Your task to perform on an android device: Open Amazon Image 0: 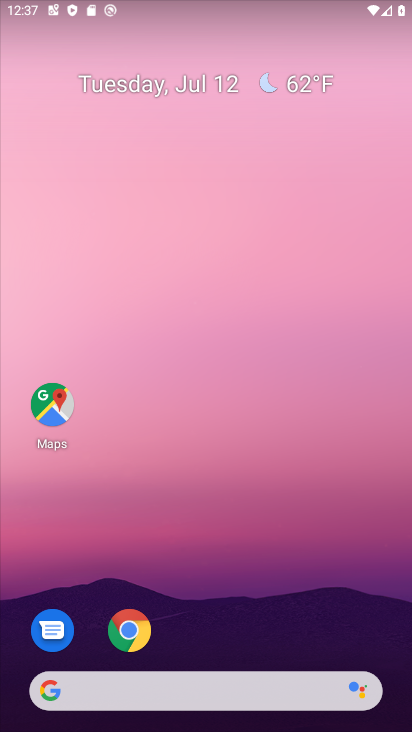
Step 0: click (125, 629)
Your task to perform on an android device: Open Amazon Image 1: 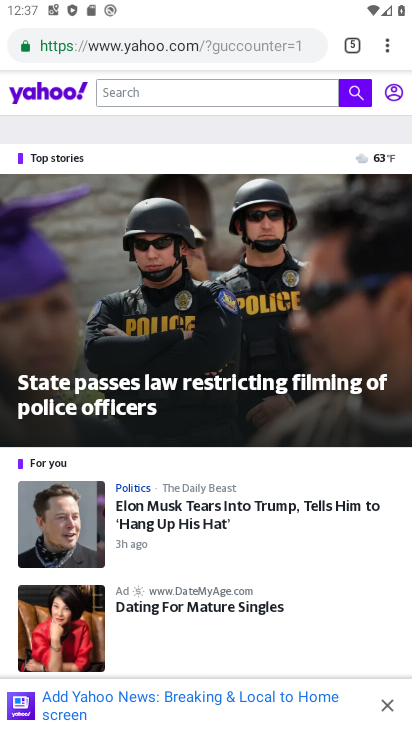
Step 1: click (385, 45)
Your task to perform on an android device: Open Amazon Image 2: 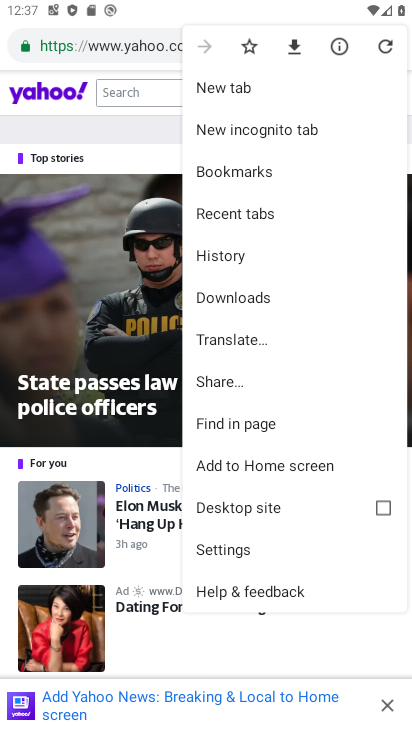
Step 2: click (234, 81)
Your task to perform on an android device: Open Amazon Image 3: 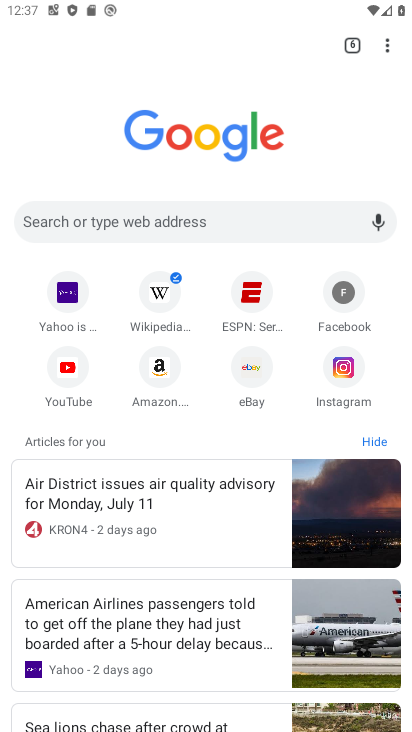
Step 3: click (161, 370)
Your task to perform on an android device: Open Amazon Image 4: 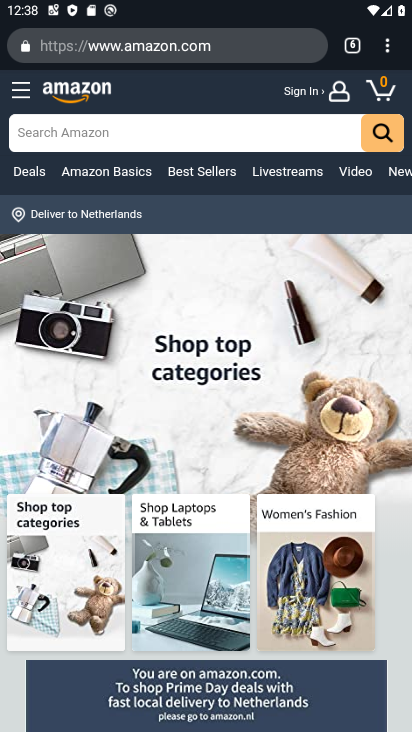
Step 4: task complete